Your task to perform on an android device: Go to Maps Image 0: 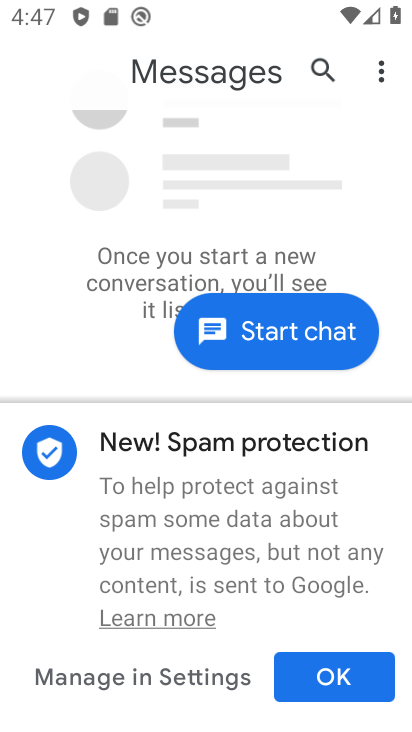
Step 0: press back button
Your task to perform on an android device: Go to Maps Image 1: 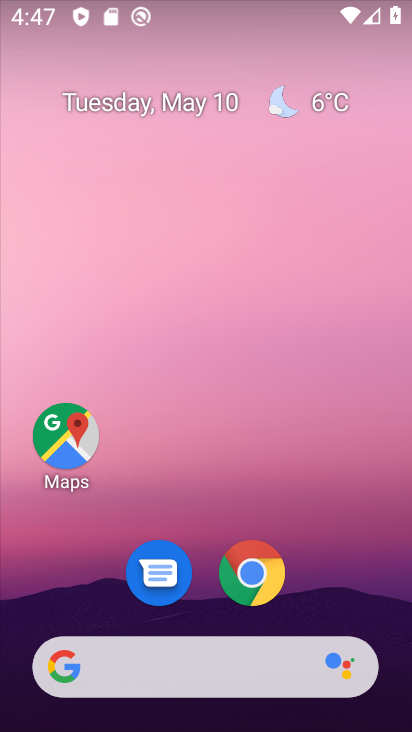
Step 1: click (59, 457)
Your task to perform on an android device: Go to Maps Image 2: 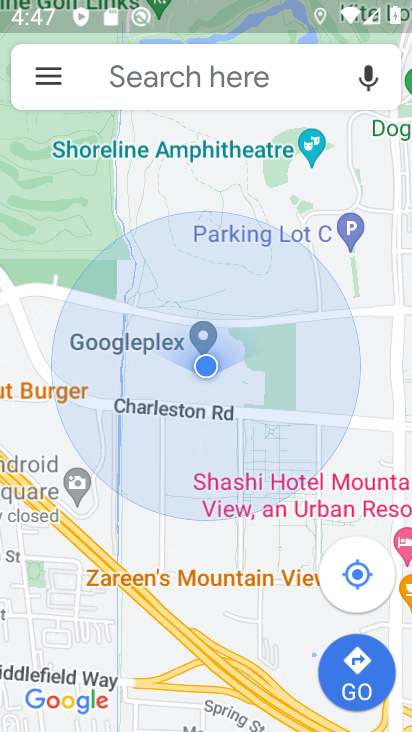
Step 2: task complete